Your task to perform on an android device: turn off smart reply in the gmail app Image 0: 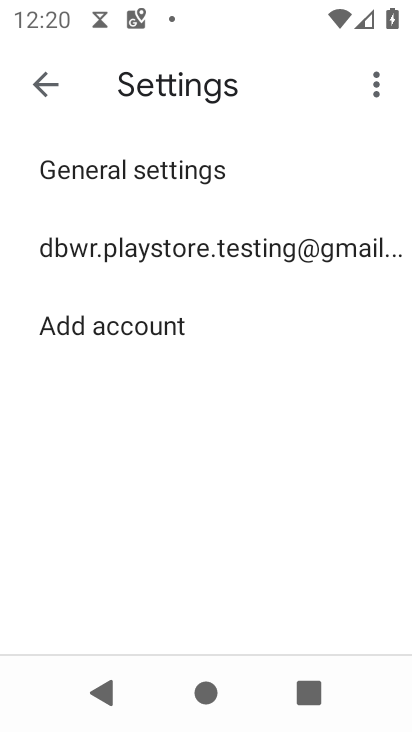
Step 0: click (184, 240)
Your task to perform on an android device: turn off smart reply in the gmail app Image 1: 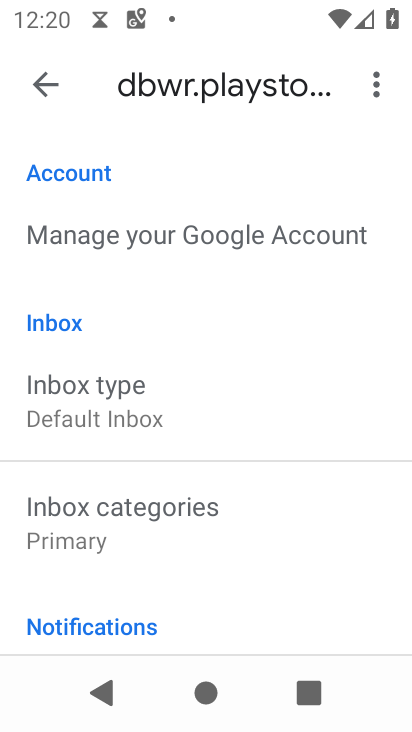
Step 1: drag from (304, 640) to (286, 133)
Your task to perform on an android device: turn off smart reply in the gmail app Image 2: 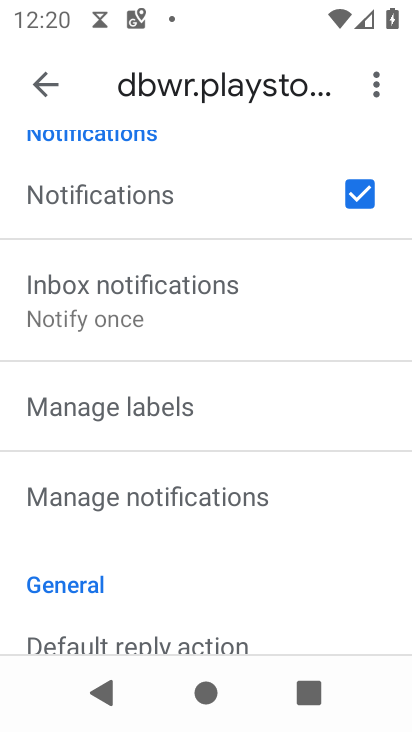
Step 2: drag from (267, 568) to (240, 115)
Your task to perform on an android device: turn off smart reply in the gmail app Image 3: 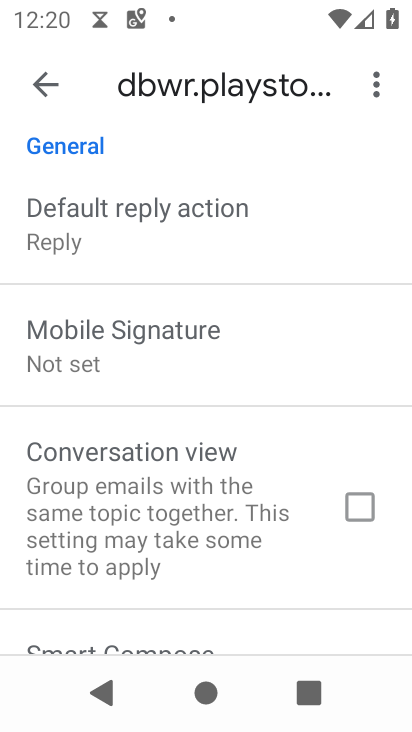
Step 3: drag from (188, 615) to (248, 173)
Your task to perform on an android device: turn off smart reply in the gmail app Image 4: 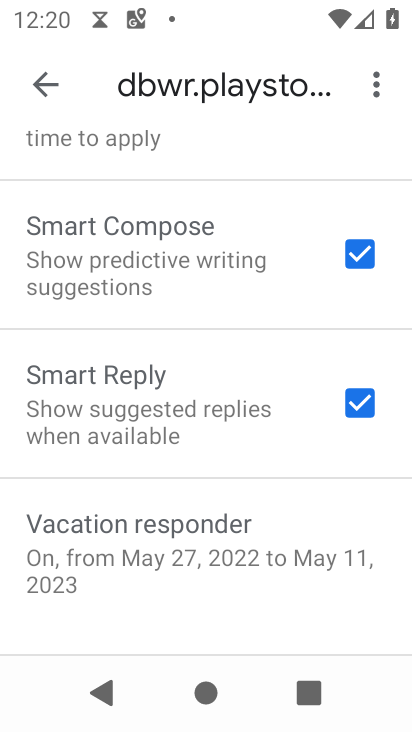
Step 4: click (356, 398)
Your task to perform on an android device: turn off smart reply in the gmail app Image 5: 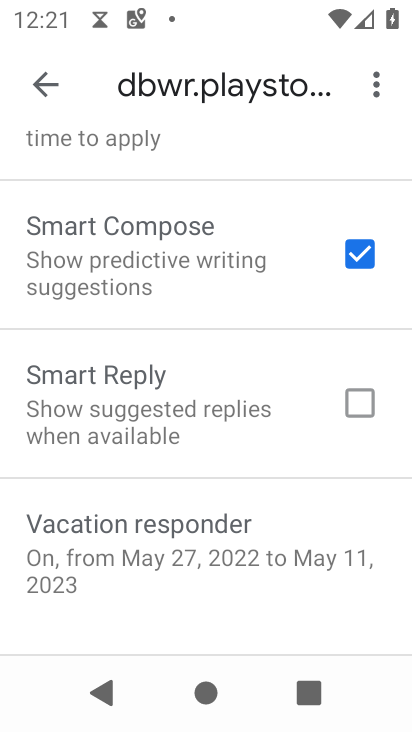
Step 5: task complete